Your task to perform on an android device: Open Yahoo.com Image 0: 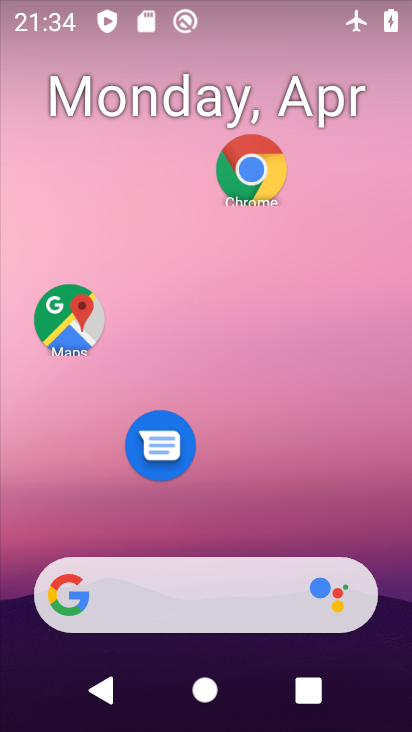
Step 0: click (254, 579)
Your task to perform on an android device: Open Yahoo.com Image 1: 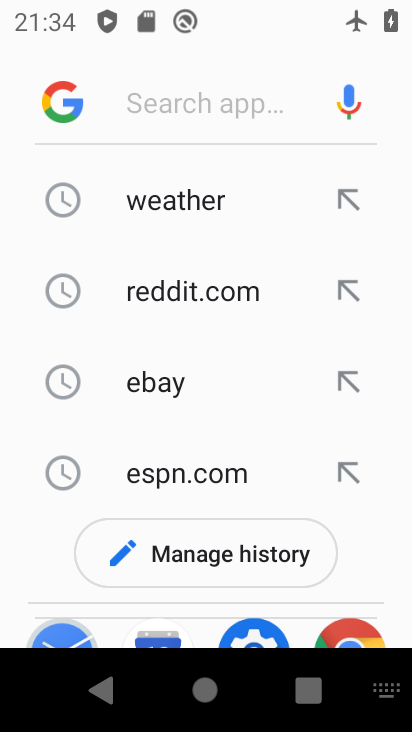
Step 1: type "Yahoo.com"
Your task to perform on an android device: Open Yahoo.com Image 2: 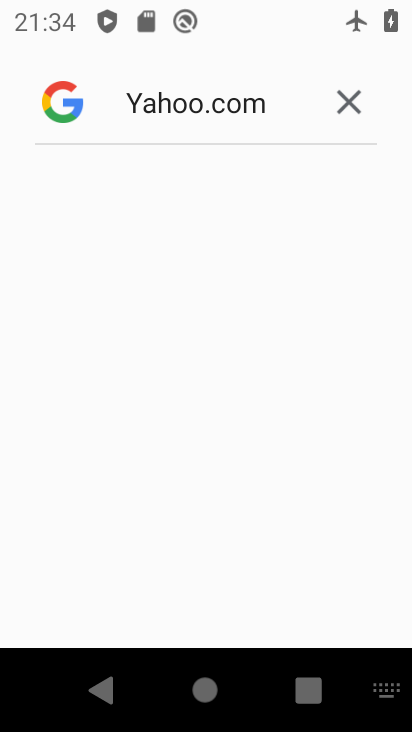
Step 2: task complete